Your task to perform on an android device: create a new album in the google photos Image 0: 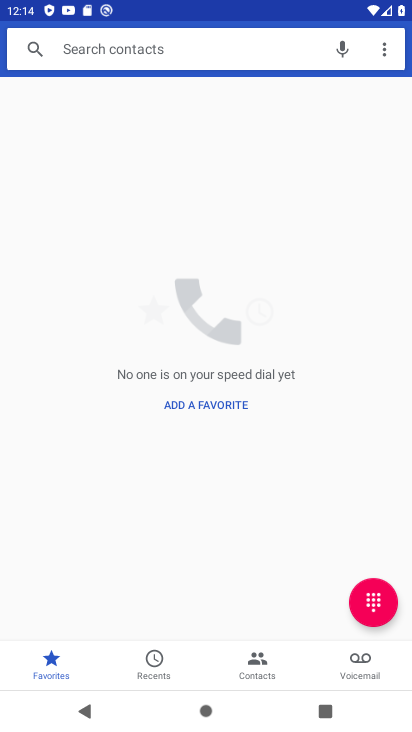
Step 0: press home button
Your task to perform on an android device: create a new album in the google photos Image 1: 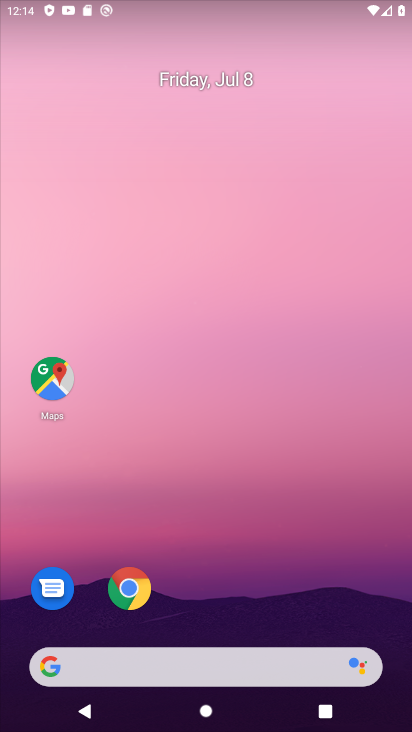
Step 1: drag from (304, 583) to (336, 94)
Your task to perform on an android device: create a new album in the google photos Image 2: 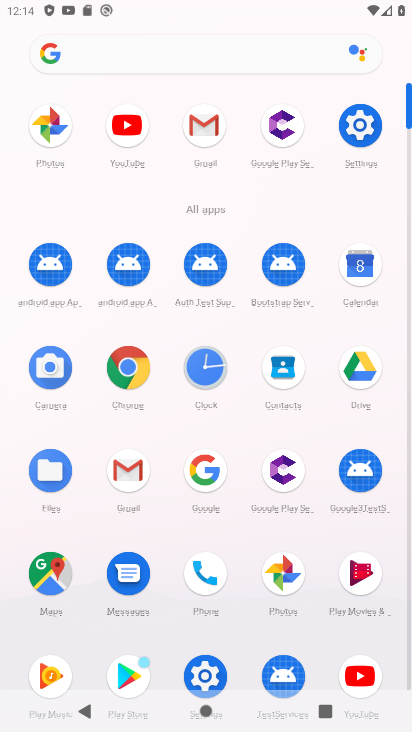
Step 2: click (278, 564)
Your task to perform on an android device: create a new album in the google photos Image 3: 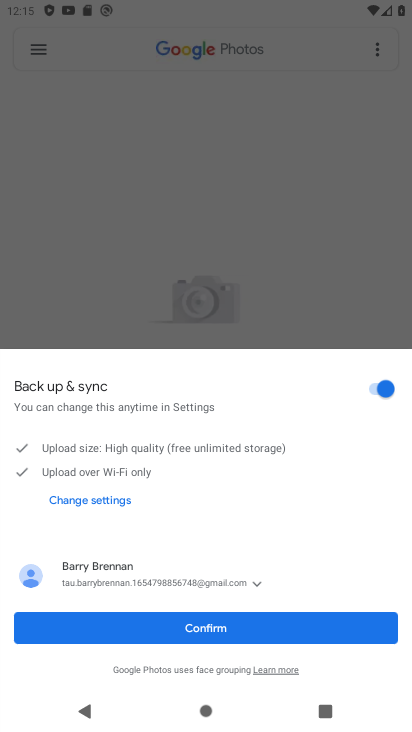
Step 3: click (200, 631)
Your task to perform on an android device: create a new album in the google photos Image 4: 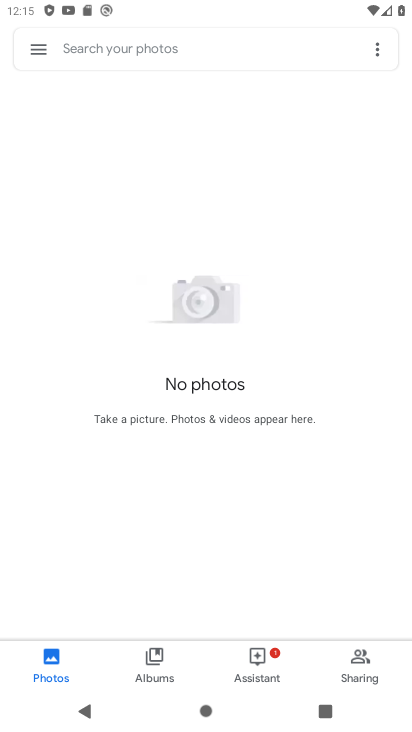
Step 4: click (162, 659)
Your task to perform on an android device: create a new album in the google photos Image 5: 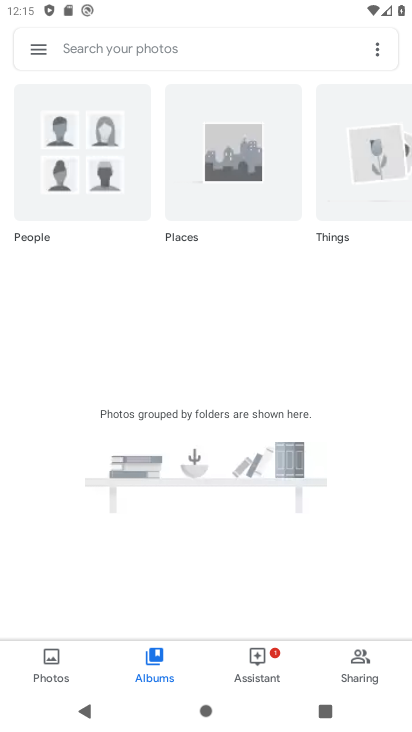
Step 5: task complete